Your task to perform on an android device: open device folders in google photos Image 0: 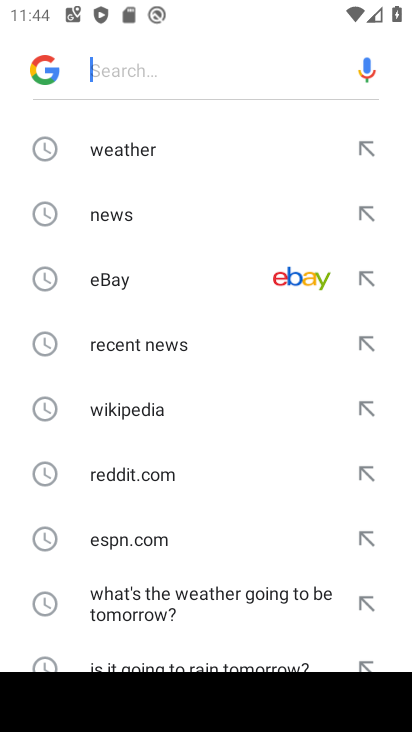
Step 0: press back button
Your task to perform on an android device: open device folders in google photos Image 1: 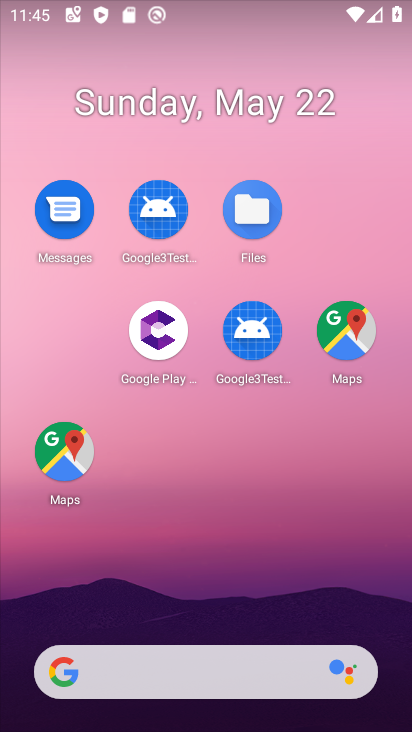
Step 1: drag from (185, 613) to (331, 7)
Your task to perform on an android device: open device folders in google photos Image 2: 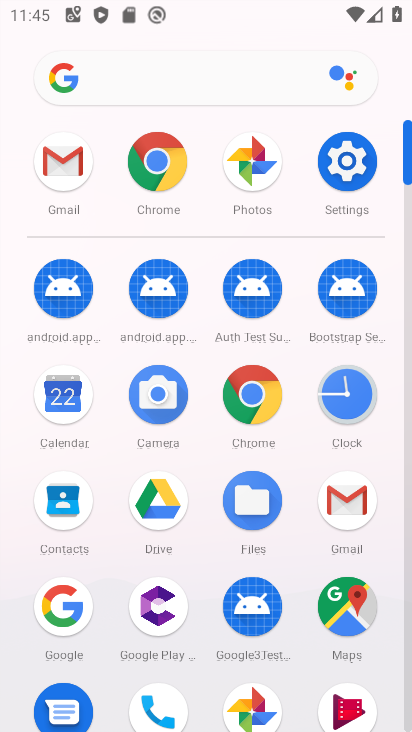
Step 2: click (258, 194)
Your task to perform on an android device: open device folders in google photos Image 3: 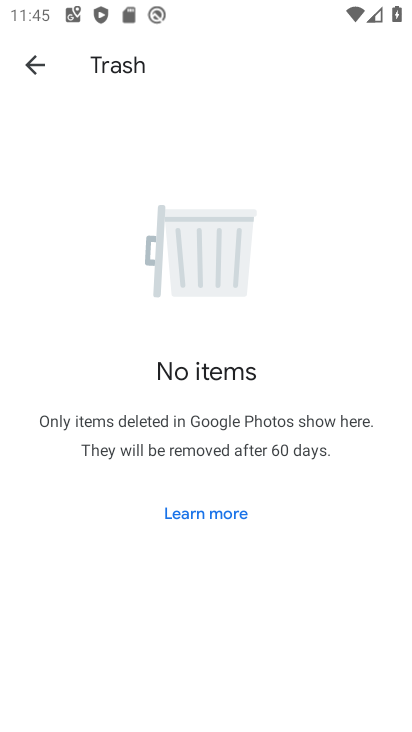
Step 3: click (25, 64)
Your task to perform on an android device: open device folders in google photos Image 4: 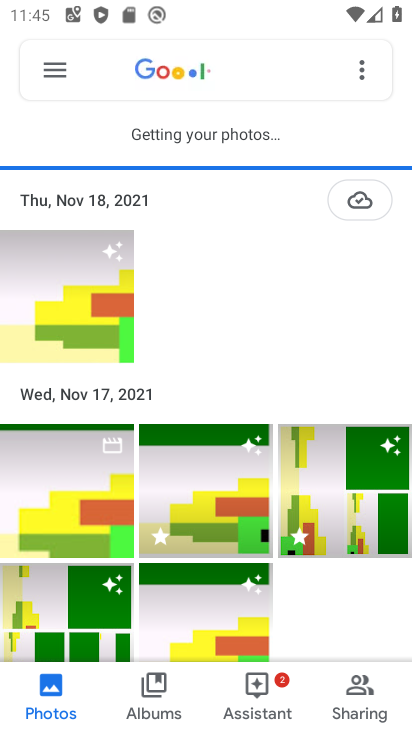
Step 4: click (48, 65)
Your task to perform on an android device: open device folders in google photos Image 5: 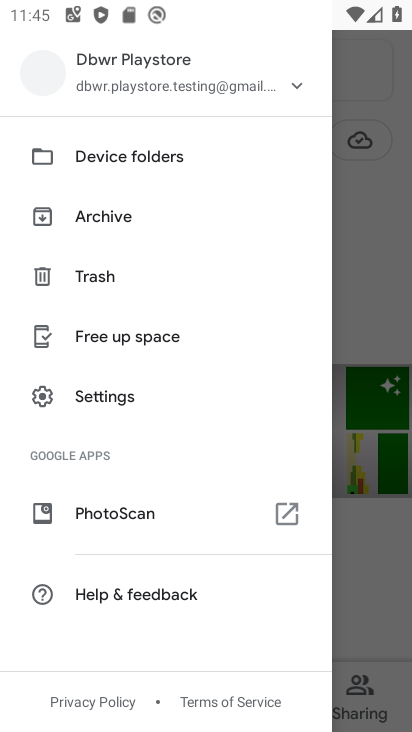
Step 5: click (110, 158)
Your task to perform on an android device: open device folders in google photos Image 6: 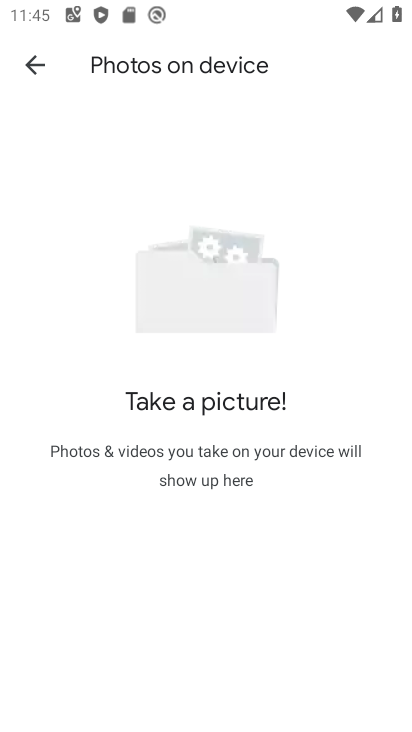
Step 6: task complete